Your task to perform on an android device: make emails show in primary in the gmail app Image 0: 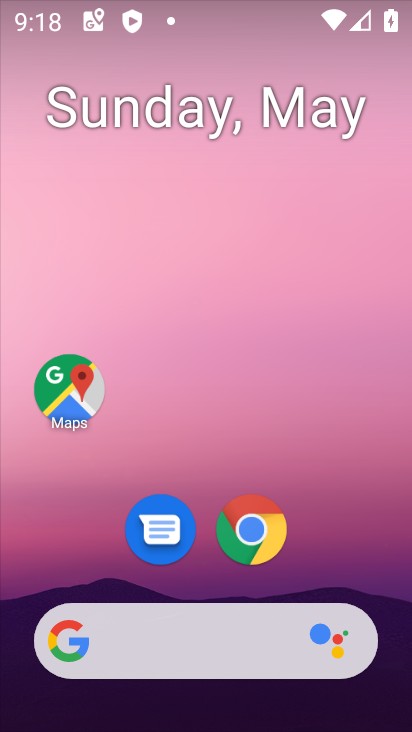
Step 0: task complete